Your task to perform on an android device: toggle priority inbox in the gmail app Image 0: 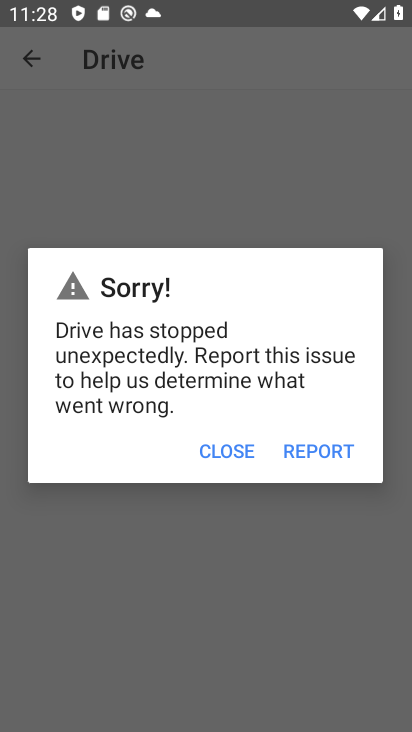
Step 0: press home button
Your task to perform on an android device: toggle priority inbox in the gmail app Image 1: 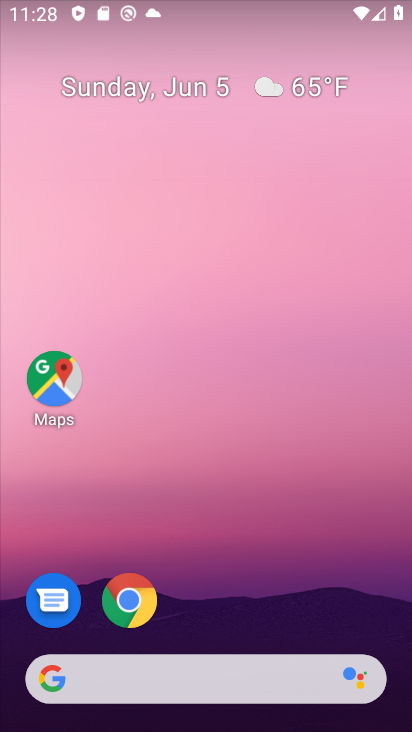
Step 1: drag from (392, 709) to (288, 40)
Your task to perform on an android device: toggle priority inbox in the gmail app Image 2: 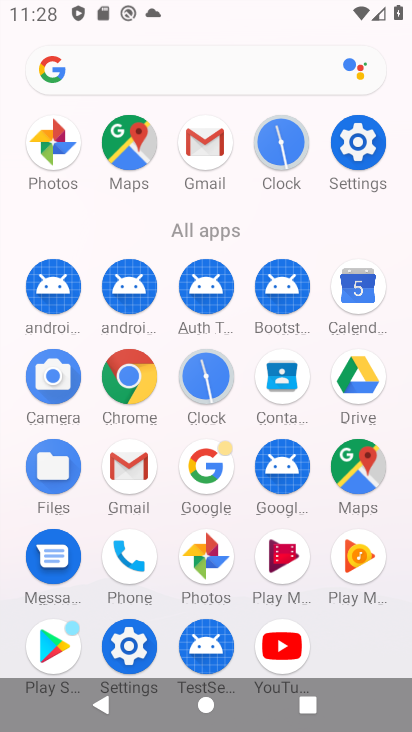
Step 2: click (199, 124)
Your task to perform on an android device: toggle priority inbox in the gmail app Image 3: 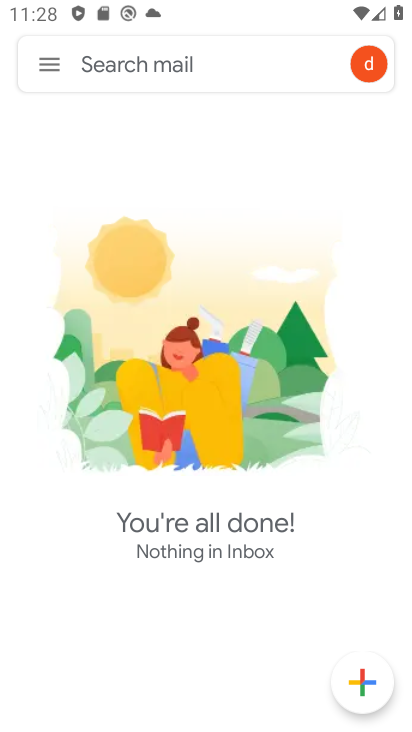
Step 3: click (45, 73)
Your task to perform on an android device: toggle priority inbox in the gmail app Image 4: 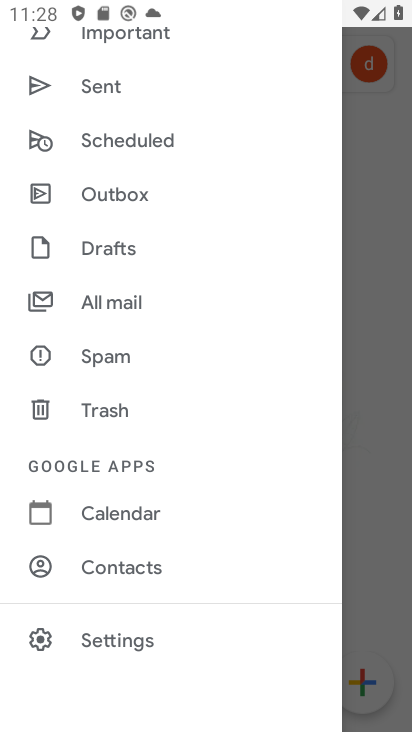
Step 4: click (124, 632)
Your task to perform on an android device: toggle priority inbox in the gmail app Image 5: 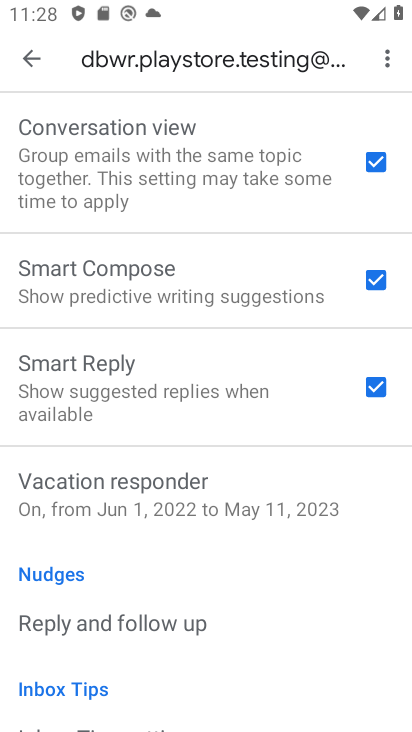
Step 5: drag from (199, 676) to (181, 291)
Your task to perform on an android device: toggle priority inbox in the gmail app Image 6: 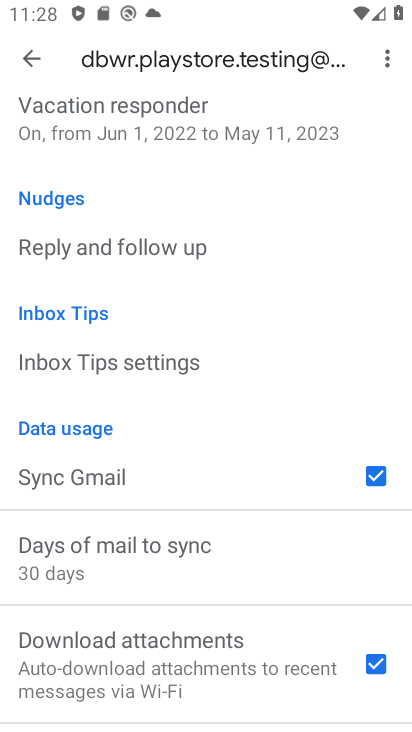
Step 6: drag from (95, 148) to (160, 626)
Your task to perform on an android device: toggle priority inbox in the gmail app Image 7: 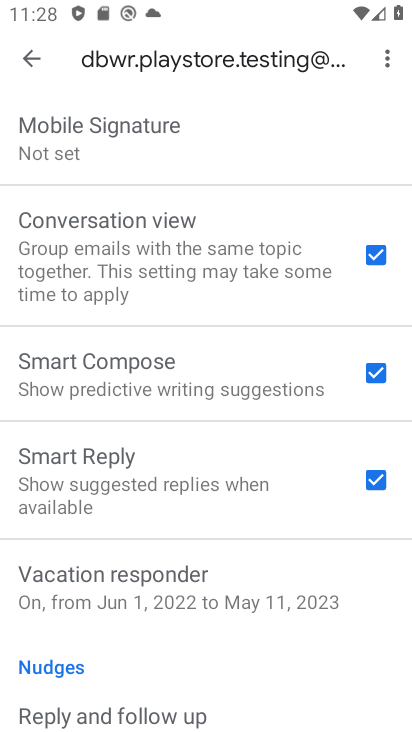
Step 7: drag from (157, 135) to (233, 656)
Your task to perform on an android device: toggle priority inbox in the gmail app Image 8: 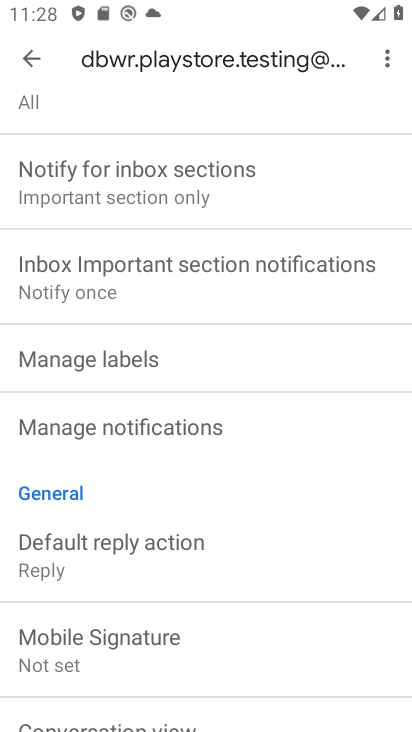
Step 8: drag from (272, 146) to (286, 628)
Your task to perform on an android device: toggle priority inbox in the gmail app Image 9: 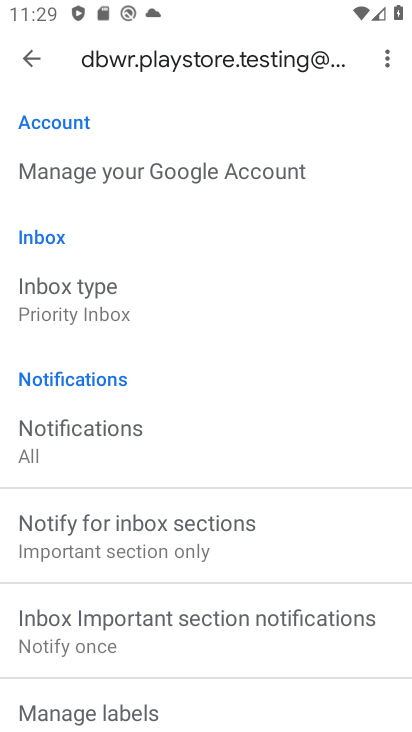
Step 9: click (81, 313)
Your task to perform on an android device: toggle priority inbox in the gmail app Image 10: 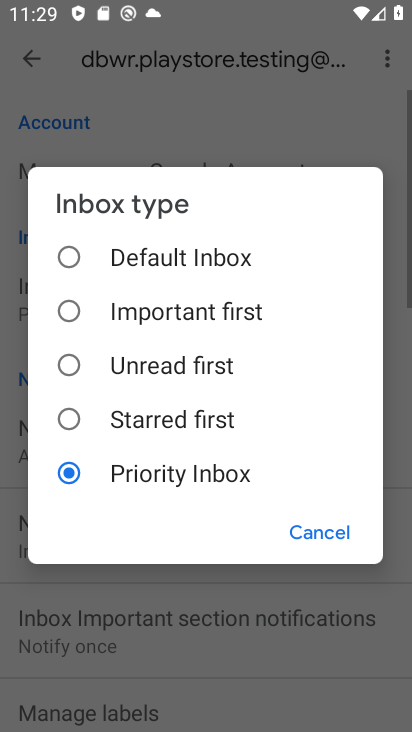
Step 10: click (137, 254)
Your task to perform on an android device: toggle priority inbox in the gmail app Image 11: 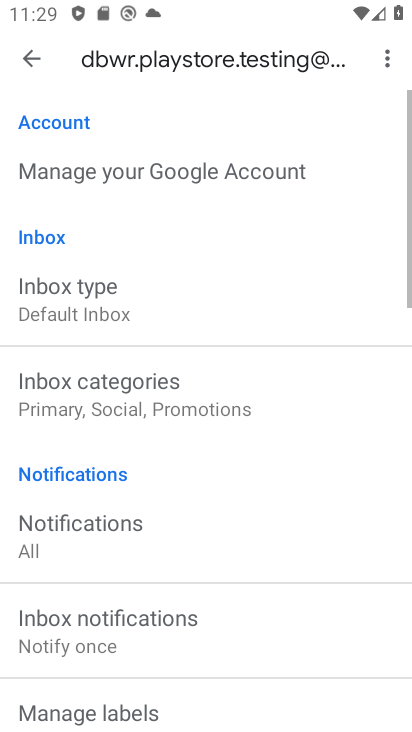
Step 11: task complete